Your task to perform on an android device: turn notification dots on Image 0: 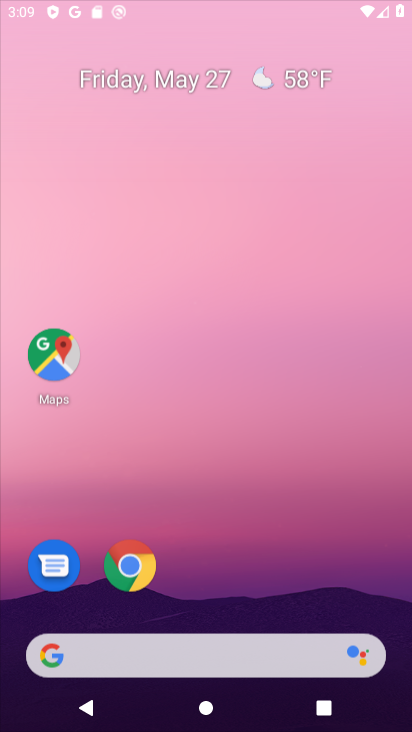
Step 0: press home button
Your task to perform on an android device: turn notification dots on Image 1: 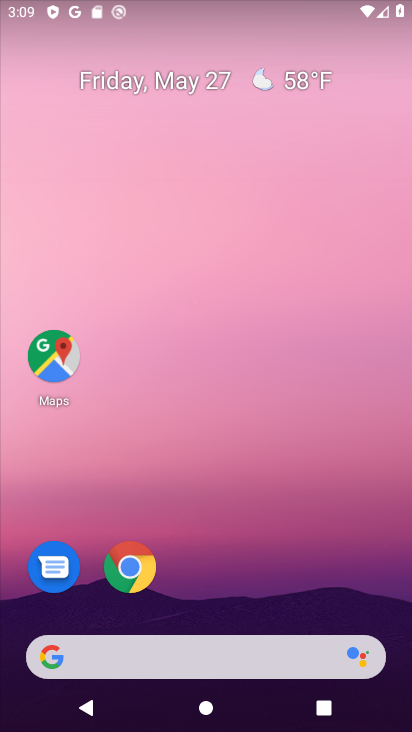
Step 1: drag from (215, 602) to (224, 46)
Your task to perform on an android device: turn notification dots on Image 2: 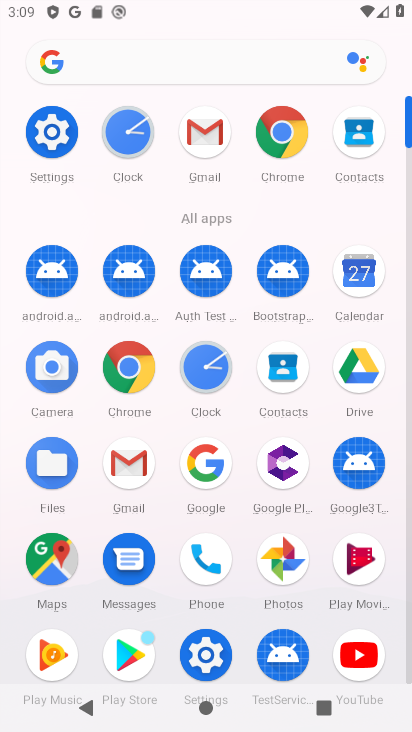
Step 2: click (48, 136)
Your task to perform on an android device: turn notification dots on Image 3: 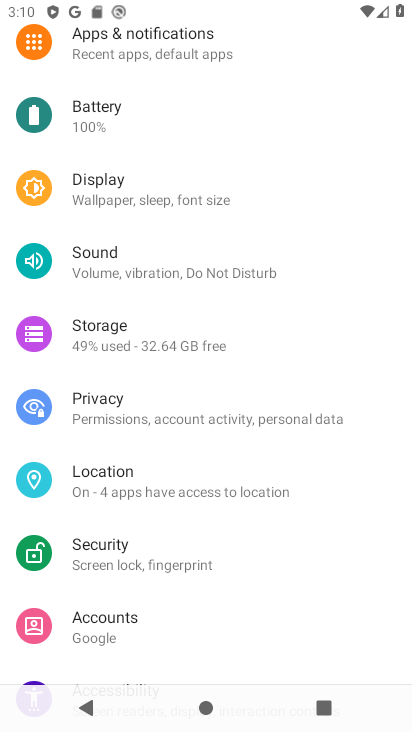
Step 3: click (152, 55)
Your task to perform on an android device: turn notification dots on Image 4: 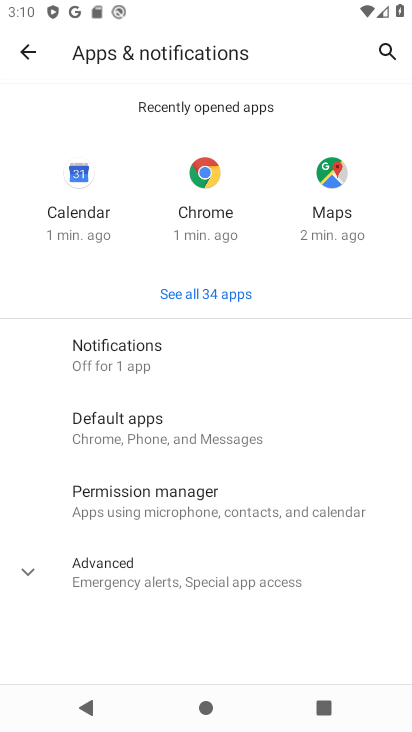
Step 4: click (28, 567)
Your task to perform on an android device: turn notification dots on Image 5: 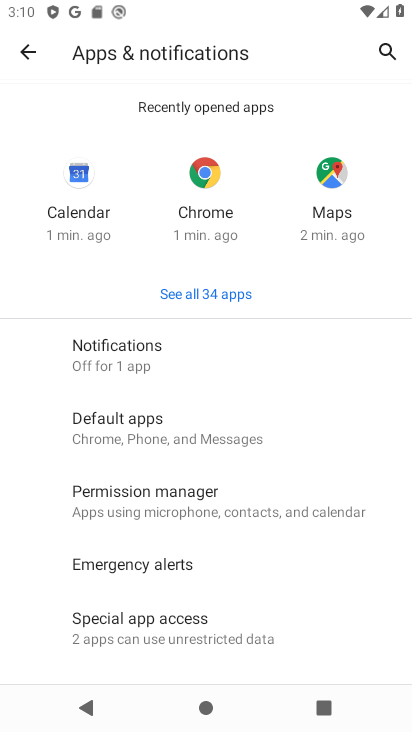
Step 5: click (51, 359)
Your task to perform on an android device: turn notification dots on Image 6: 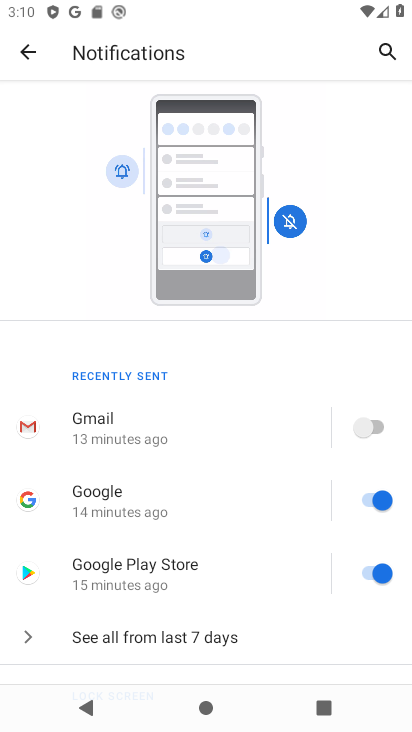
Step 6: drag from (213, 615) to (245, 103)
Your task to perform on an android device: turn notification dots on Image 7: 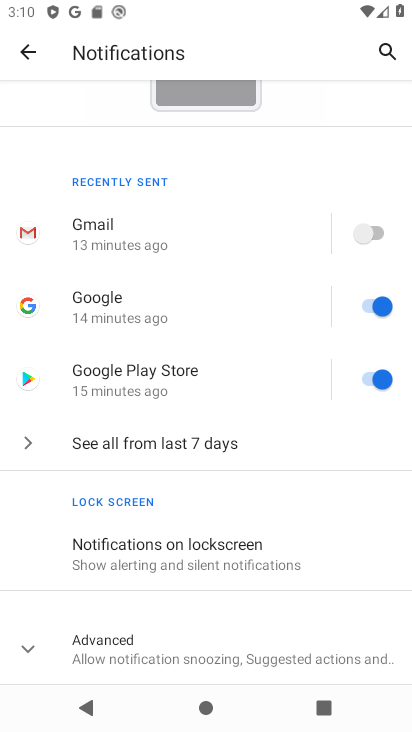
Step 7: click (30, 645)
Your task to perform on an android device: turn notification dots on Image 8: 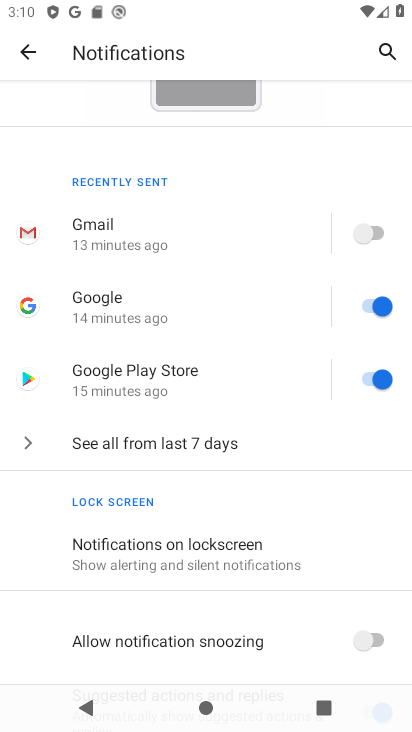
Step 8: task complete